Your task to perform on an android device: Open Yahoo.com Image 0: 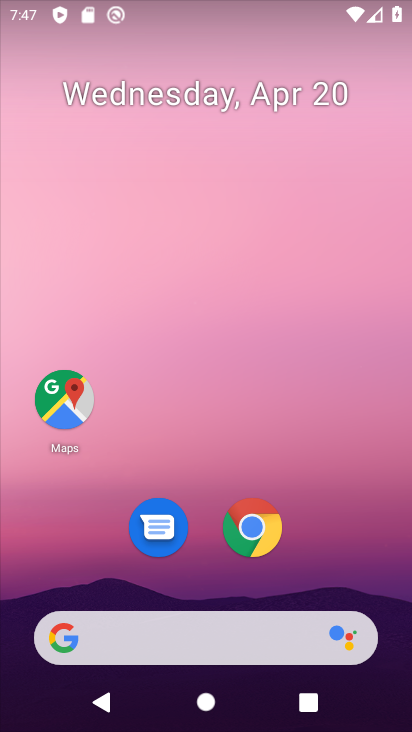
Step 0: click (253, 533)
Your task to perform on an android device: Open Yahoo.com Image 1: 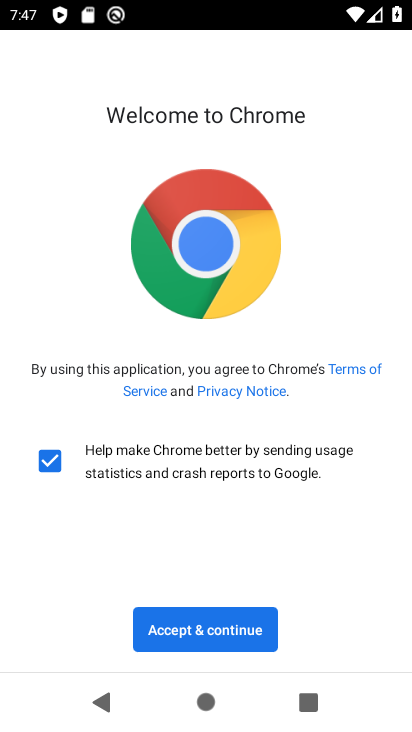
Step 1: click (178, 644)
Your task to perform on an android device: Open Yahoo.com Image 2: 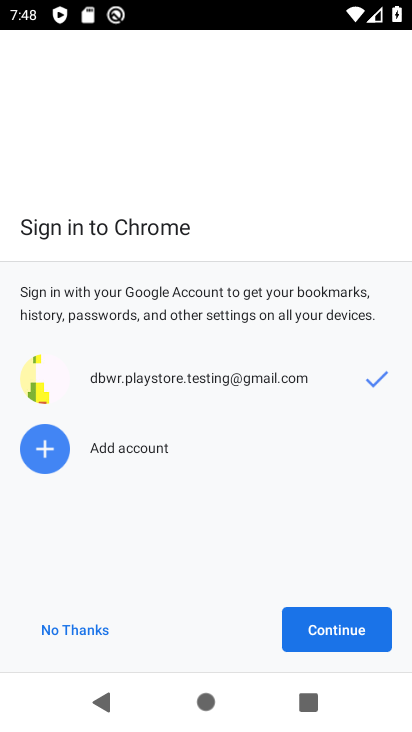
Step 2: click (319, 626)
Your task to perform on an android device: Open Yahoo.com Image 3: 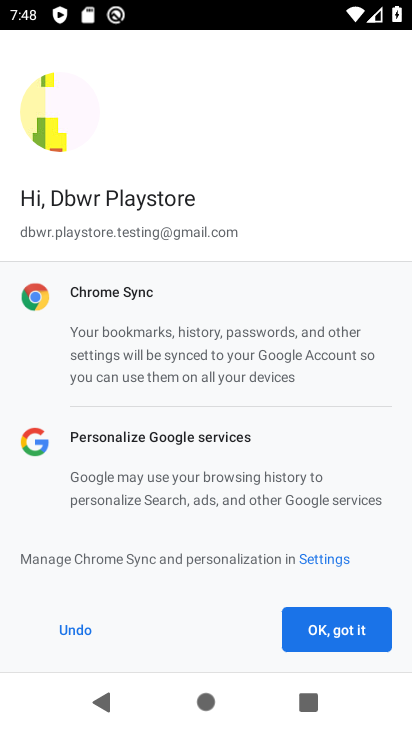
Step 3: click (319, 626)
Your task to perform on an android device: Open Yahoo.com Image 4: 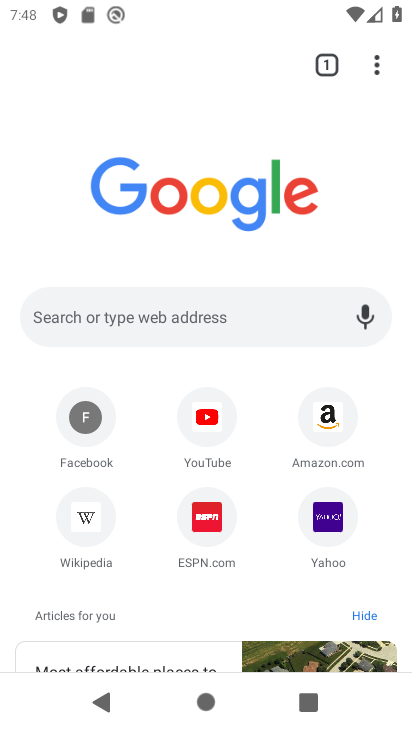
Step 4: click (321, 514)
Your task to perform on an android device: Open Yahoo.com Image 5: 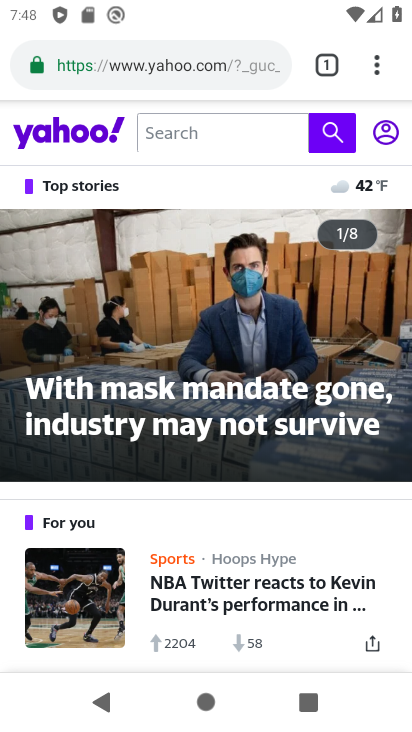
Step 5: task complete